Your task to perform on an android device: Go to wifi settings Image 0: 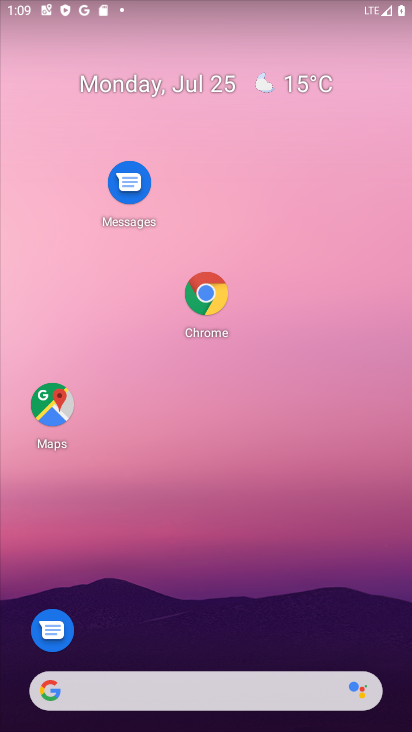
Step 0: press home button
Your task to perform on an android device: Go to wifi settings Image 1: 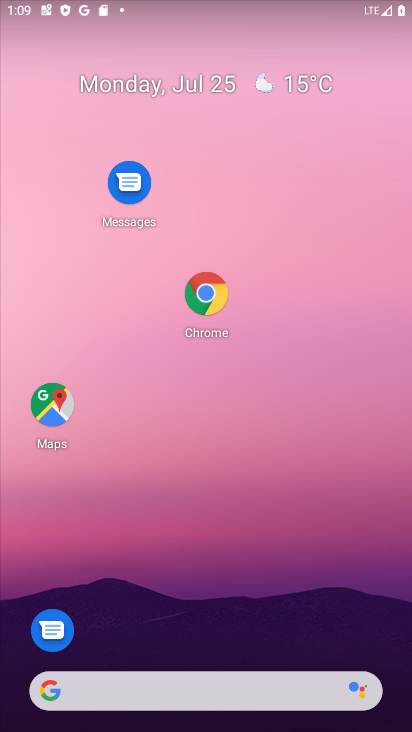
Step 1: drag from (265, 632) to (402, 53)
Your task to perform on an android device: Go to wifi settings Image 2: 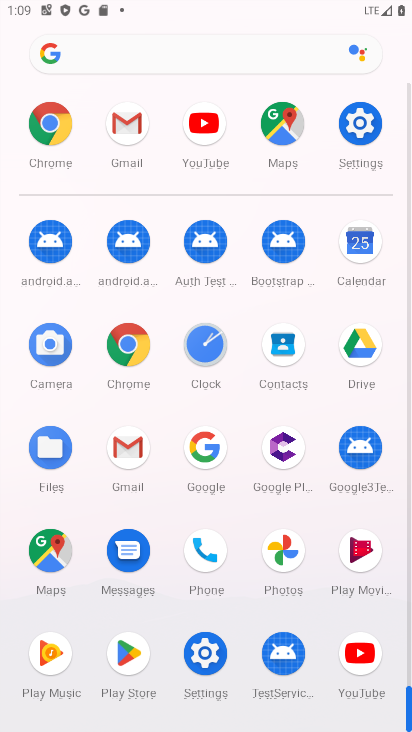
Step 2: press home button
Your task to perform on an android device: Go to wifi settings Image 3: 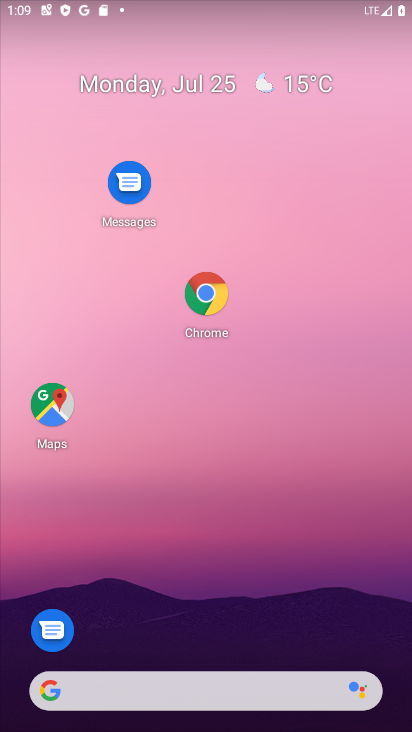
Step 3: drag from (303, 585) to (411, 145)
Your task to perform on an android device: Go to wifi settings Image 4: 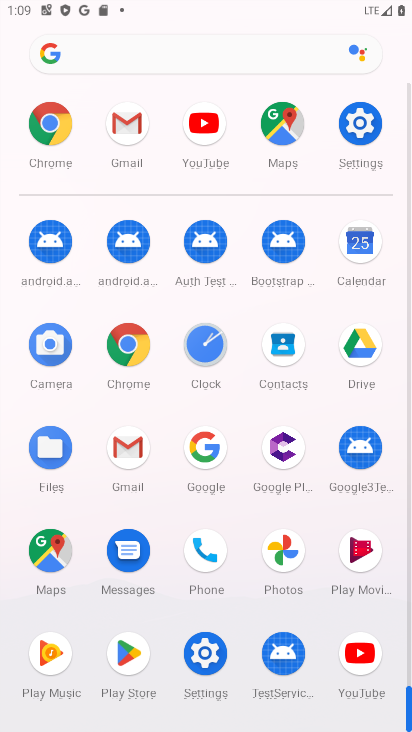
Step 4: drag from (276, 5) to (80, 425)
Your task to perform on an android device: Go to wifi settings Image 5: 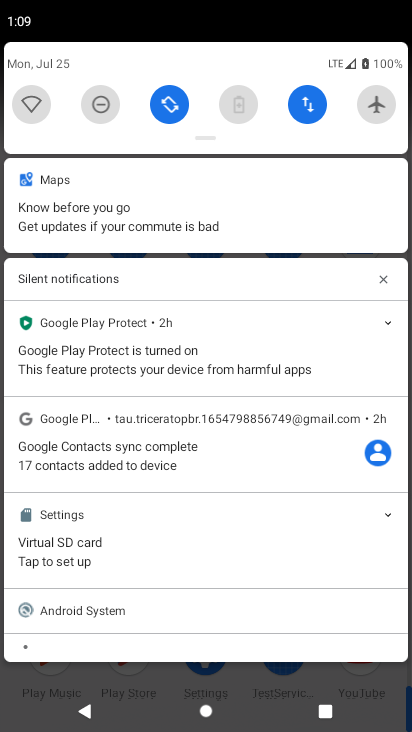
Step 5: click (24, 104)
Your task to perform on an android device: Go to wifi settings Image 6: 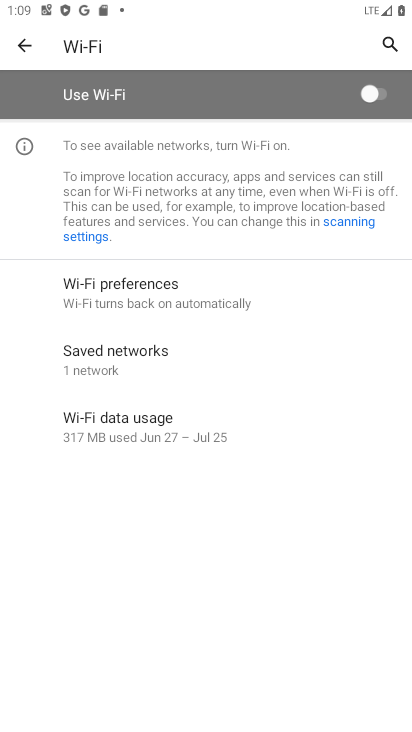
Step 6: task complete